Your task to perform on an android device: Open network settings Image 0: 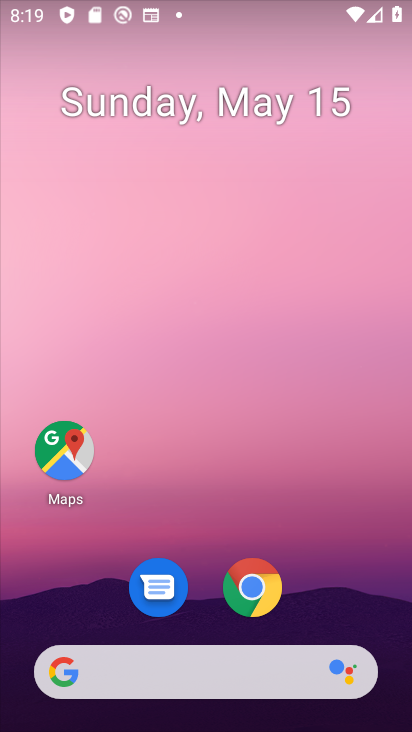
Step 0: drag from (353, 581) to (252, 82)
Your task to perform on an android device: Open network settings Image 1: 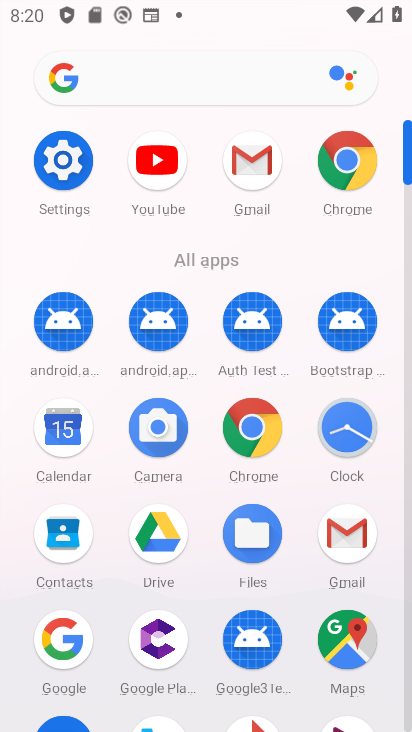
Step 1: click (62, 170)
Your task to perform on an android device: Open network settings Image 2: 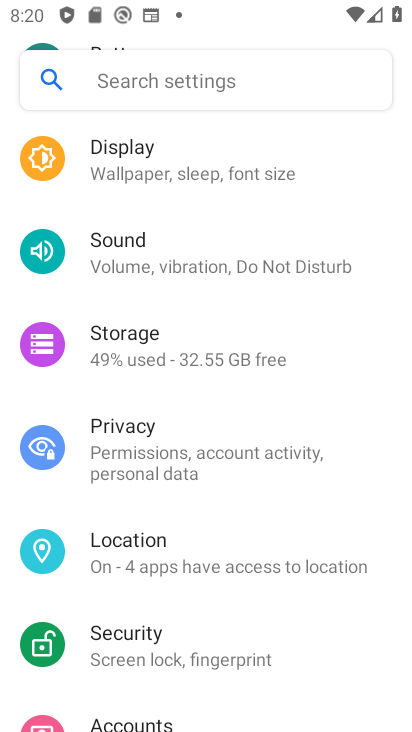
Step 2: drag from (125, 176) to (205, 628)
Your task to perform on an android device: Open network settings Image 3: 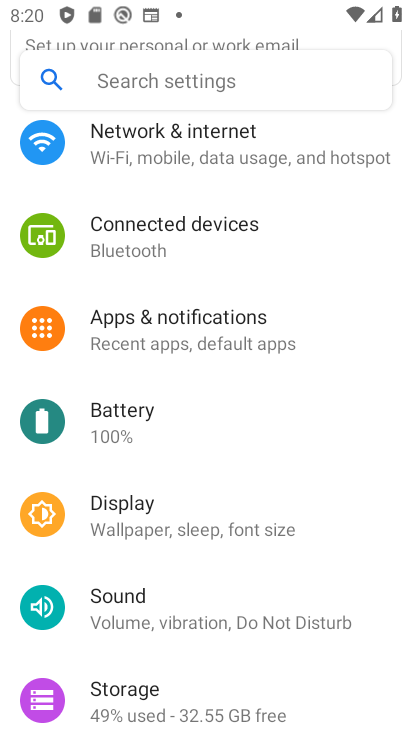
Step 3: drag from (215, 168) to (264, 585)
Your task to perform on an android device: Open network settings Image 4: 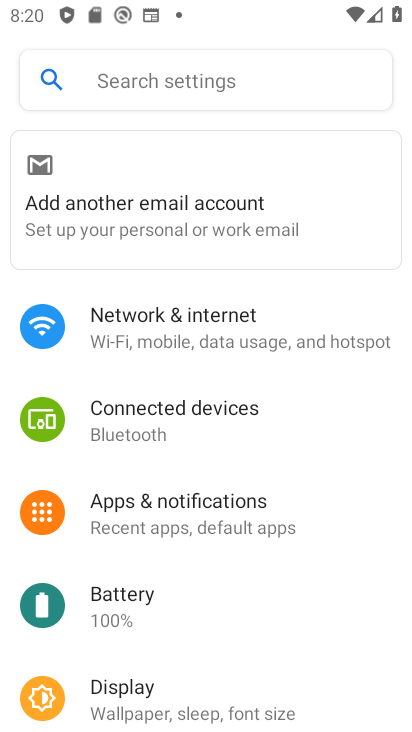
Step 4: click (232, 313)
Your task to perform on an android device: Open network settings Image 5: 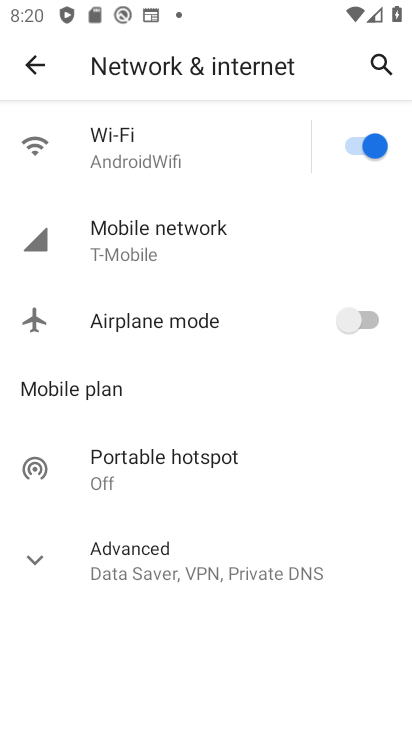
Step 5: task complete